Your task to perform on an android device: Do I have any events this weekend? Image 0: 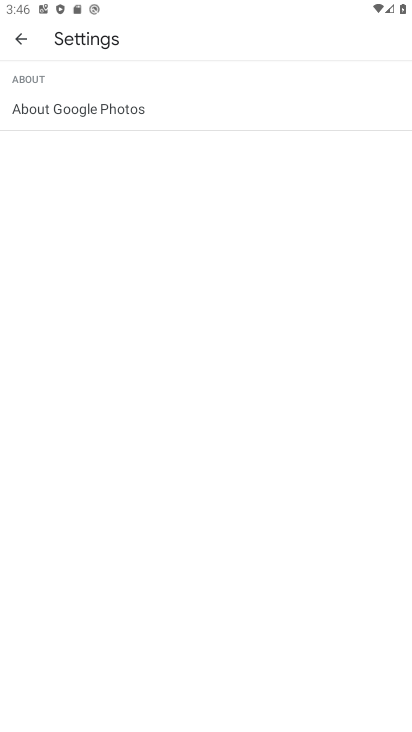
Step 0: press home button
Your task to perform on an android device: Do I have any events this weekend? Image 1: 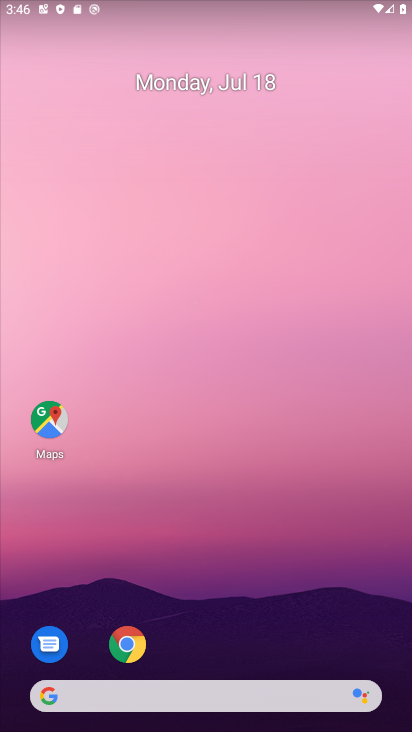
Step 1: drag from (374, 646) to (356, 241)
Your task to perform on an android device: Do I have any events this weekend? Image 2: 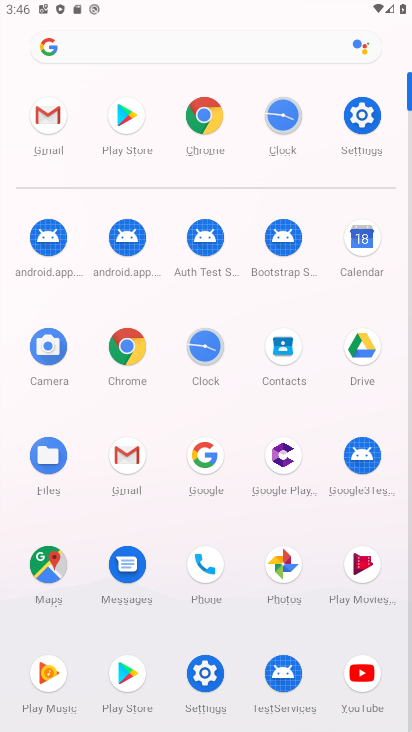
Step 2: click (361, 237)
Your task to perform on an android device: Do I have any events this weekend? Image 3: 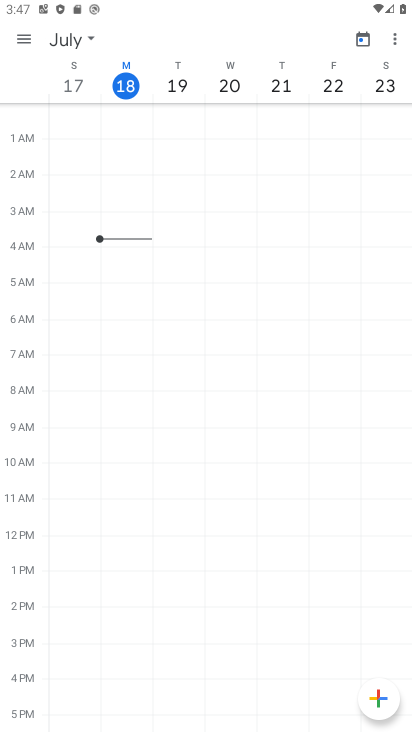
Step 3: task complete